Your task to perform on an android device: Open my contact list Image 0: 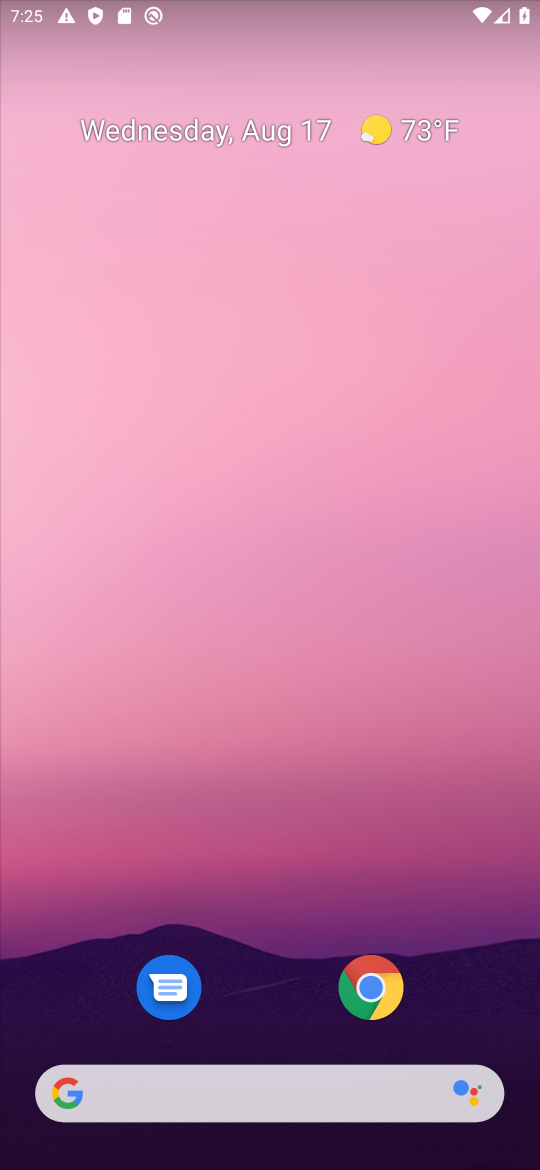
Step 0: drag from (501, 986) to (276, 62)
Your task to perform on an android device: Open my contact list Image 1: 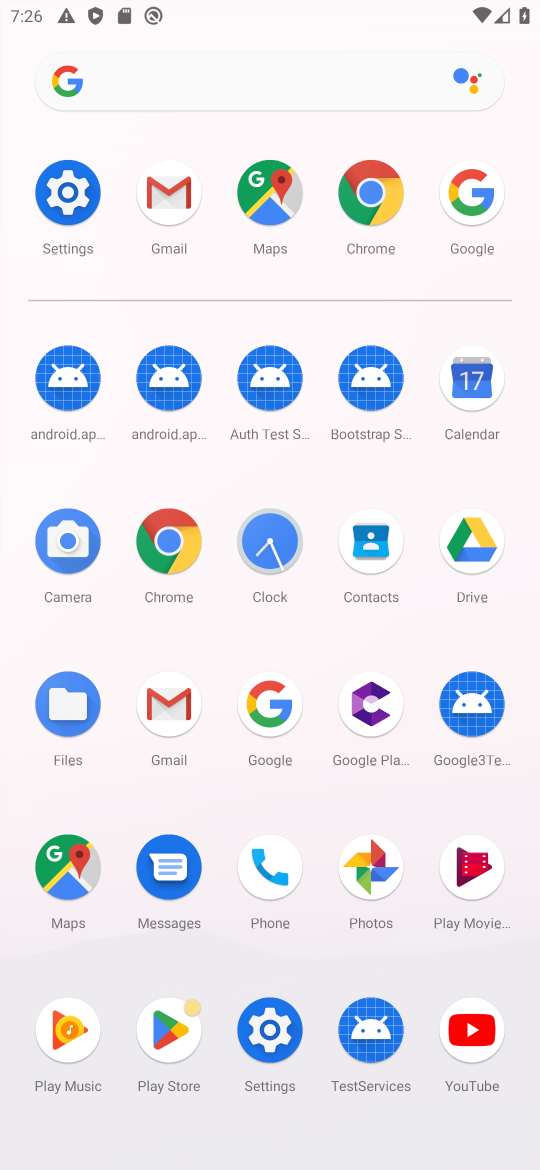
Step 1: click (352, 534)
Your task to perform on an android device: Open my contact list Image 2: 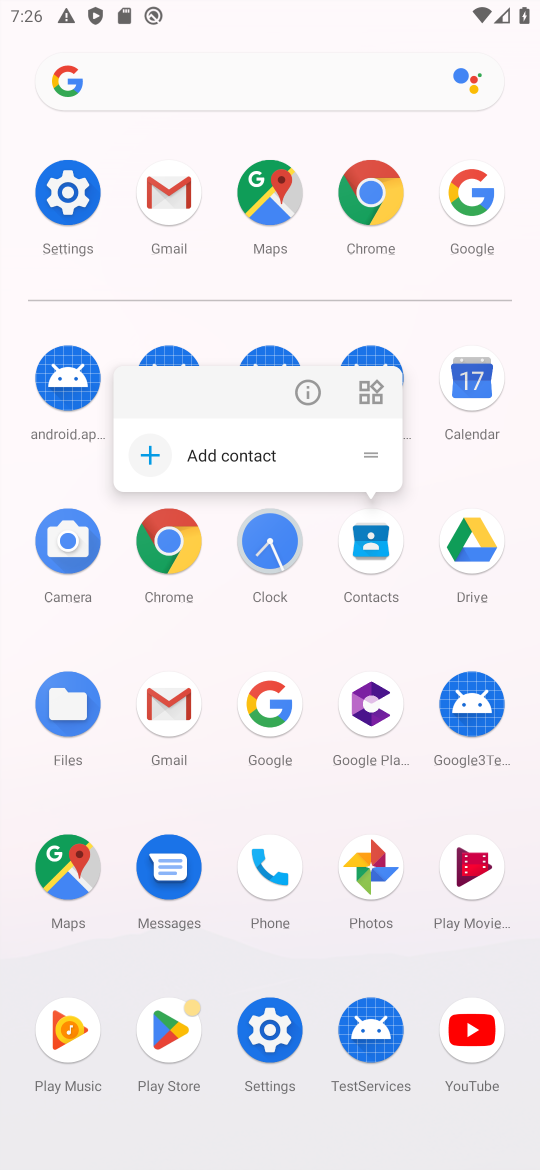
Step 2: click (385, 539)
Your task to perform on an android device: Open my contact list Image 3: 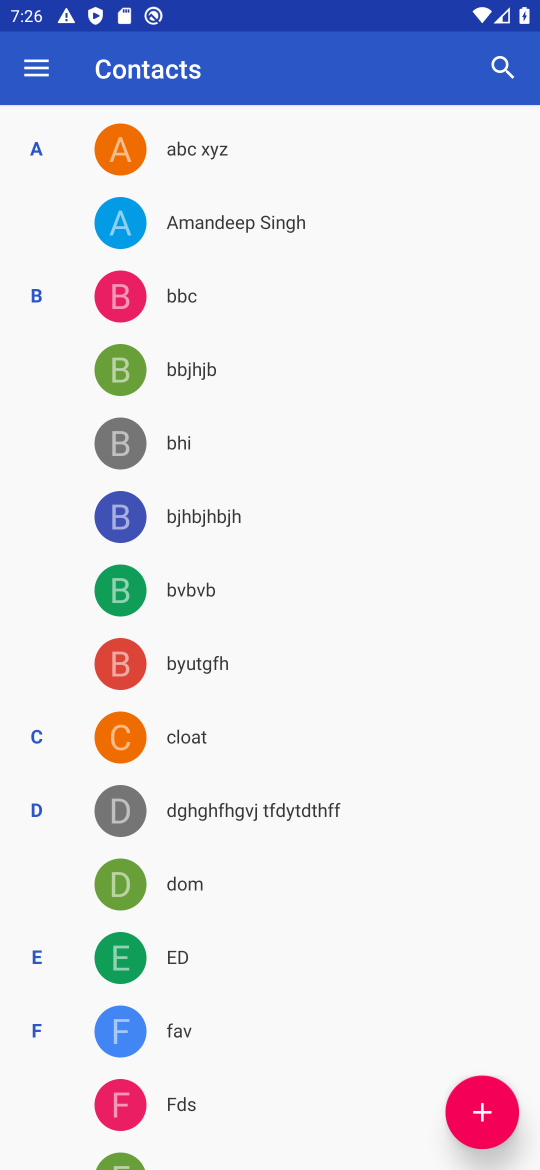
Step 3: task complete